Your task to perform on an android device: remove spam from my inbox in the gmail app Image 0: 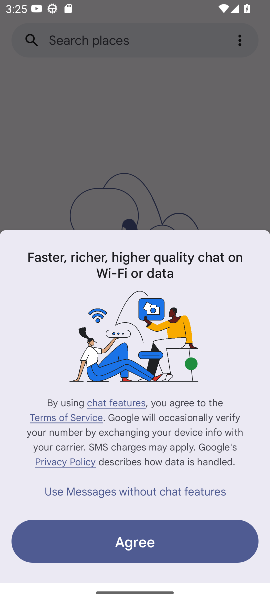
Step 0: press home button
Your task to perform on an android device: remove spam from my inbox in the gmail app Image 1: 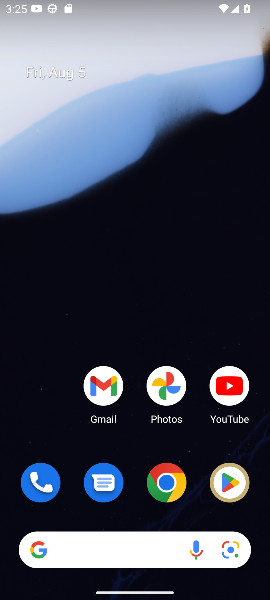
Step 1: press home button
Your task to perform on an android device: remove spam from my inbox in the gmail app Image 2: 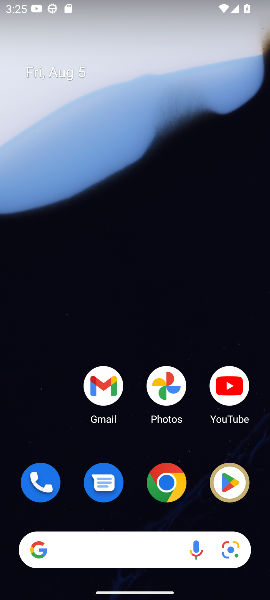
Step 2: click (101, 378)
Your task to perform on an android device: remove spam from my inbox in the gmail app Image 3: 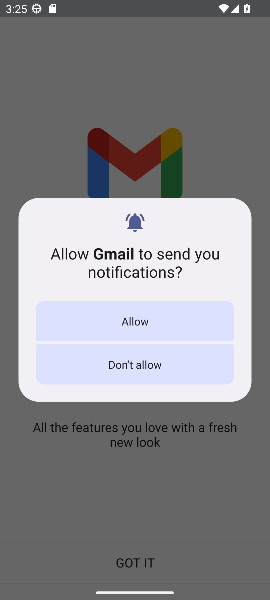
Step 3: click (135, 318)
Your task to perform on an android device: remove spam from my inbox in the gmail app Image 4: 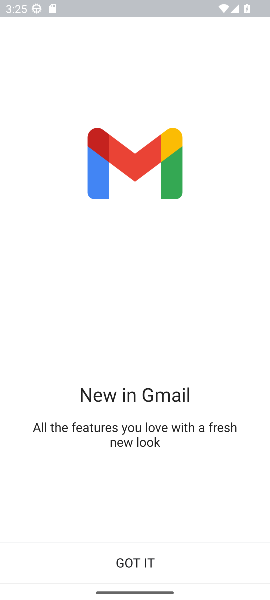
Step 4: click (140, 569)
Your task to perform on an android device: remove spam from my inbox in the gmail app Image 5: 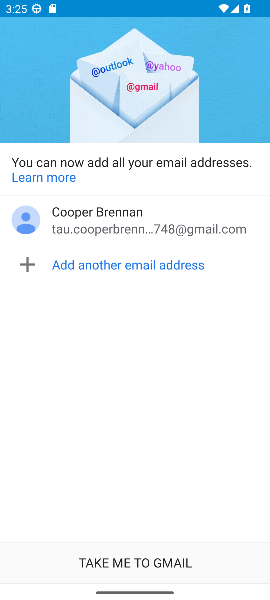
Step 5: click (130, 566)
Your task to perform on an android device: remove spam from my inbox in the gmail app Image 6: 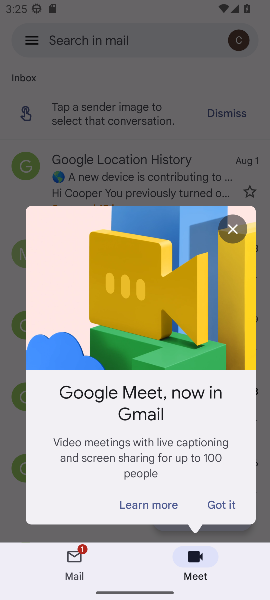
Step 6: click (223, 501)
Your task to perform on an android device: remove spam from my inbox in the gmail app Image 7: 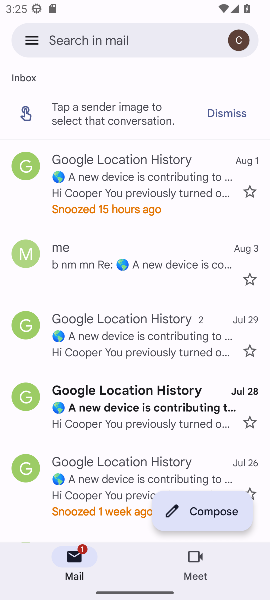
Step 7: click (28, 38)
Your task to perform on an android device: remove spam from my inbox in the gmail app Image 8: 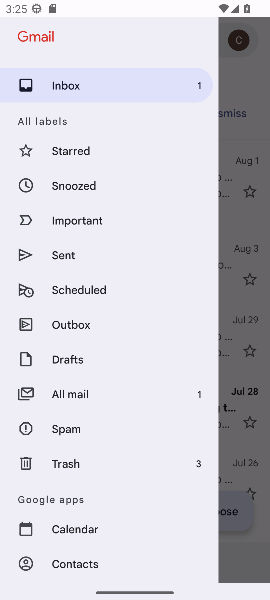
Step 8: click (83, 423)
Your task to perform on an android device: remove spam from my inbox in the gmail app Image 9: 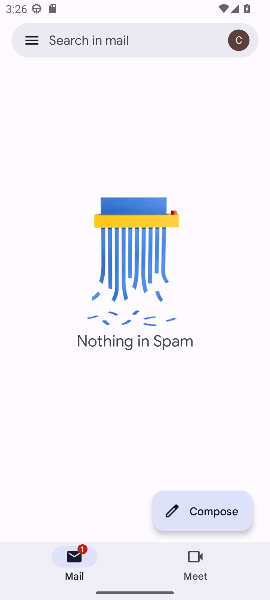
Step 9: task complete